Your task to perform on an android device: Open wifi settings Image 0: 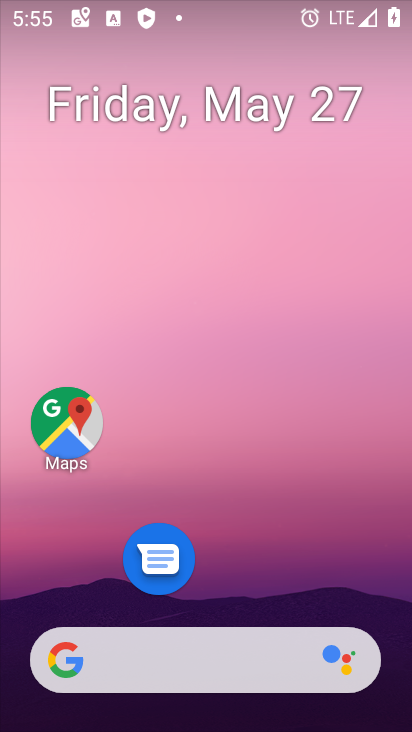
Step 0: drag from (306, 677) to (335, 7)
Your task to perform on an android device: Open wifi settings Image 1: 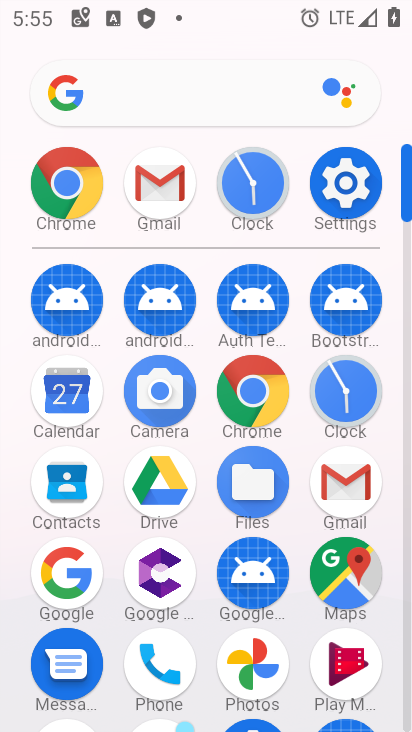
Step 1: click (347, 191)
Your task to perform on an android device: Open wifi settings Image 2: 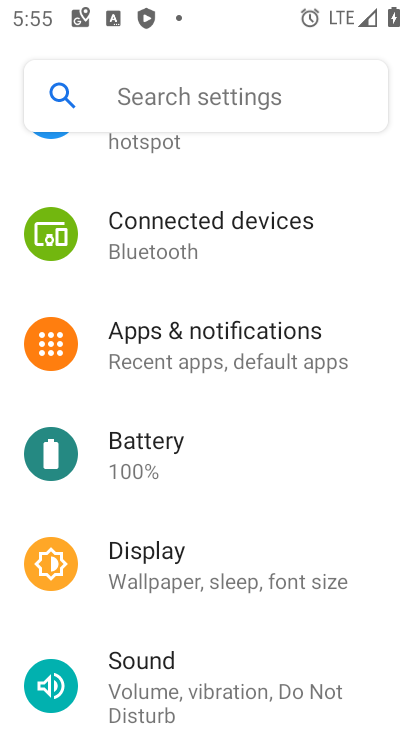
Step 2: drag from (222, 191) to (196, 699)
Your task to perform on an android device: Open wifi settings Image 3: 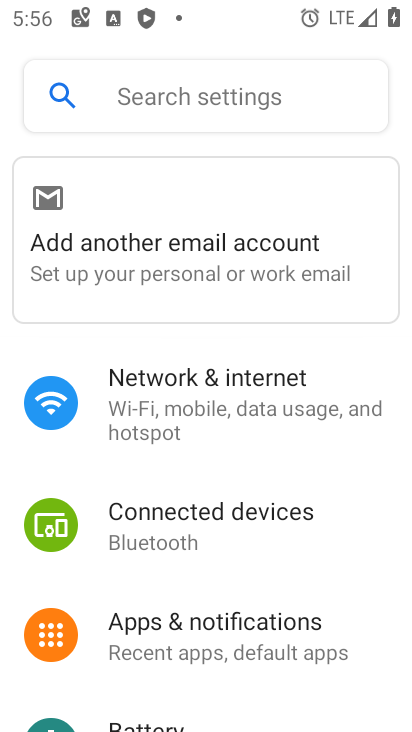
Step 3: click (207, 325)
Your task to perform on an android device: Open wifi settings Image 4: 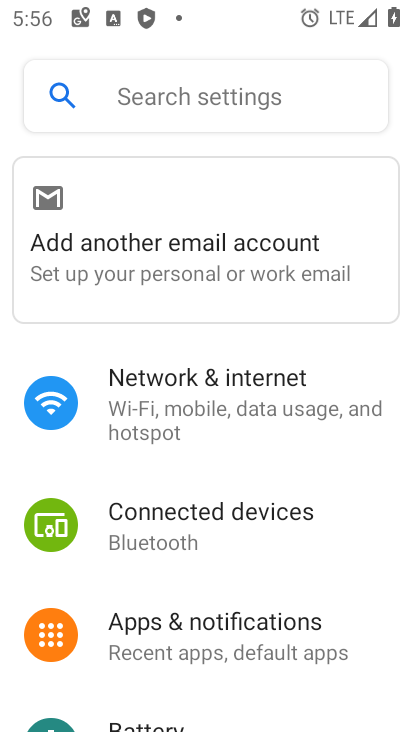
Step 4: click (220, 401)
Your task to perform on an android device: Open wifi settings Image 5: 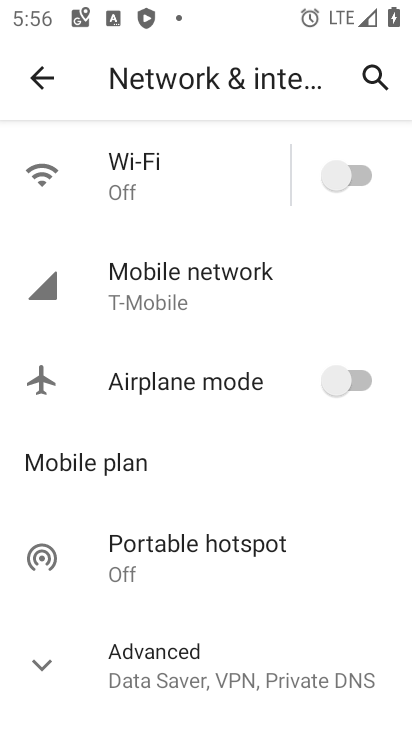
Step 5: click (173, 174)
Your task to perform on an android device: Open wifi settings Image 6: 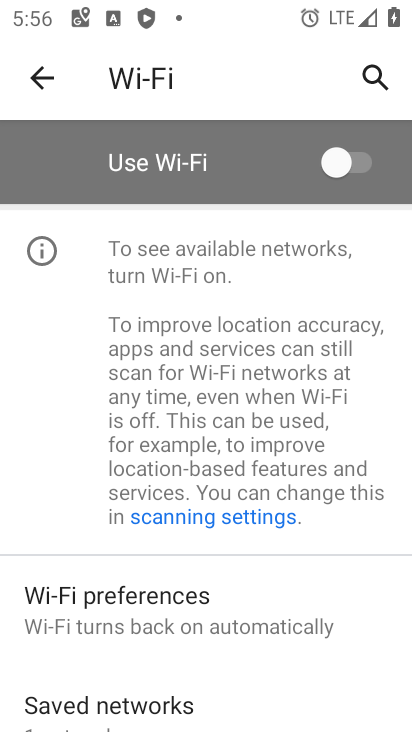
Step 6: task complete